Your task to perform on an android device: open chrome privacy settings Image 0: 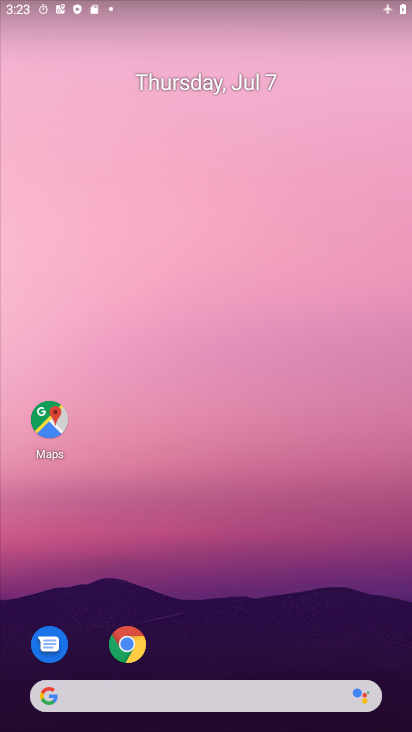
Step 0: drag from (193, 667) to (387, 34)
Your task to perform on an android device: open chrome privacy settings Image 1: 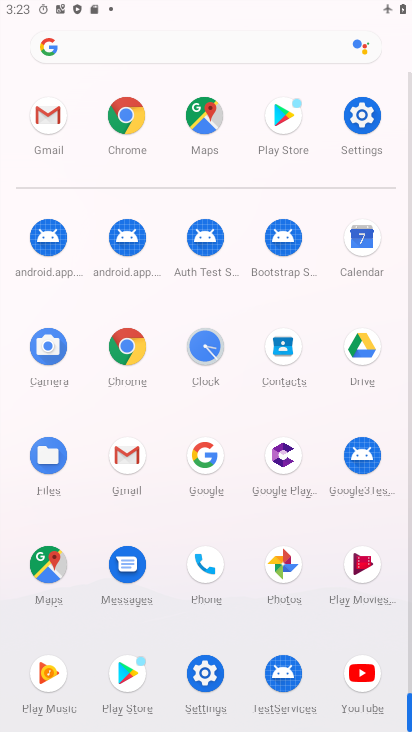
Step 1: click (118, 352)
Your task to perform on an android device: open chrome privacy settings Image 2: 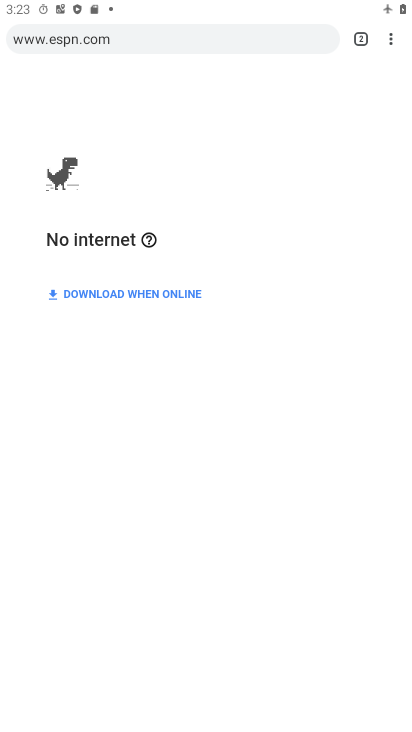
Step 2: drag from (391, 32) to (248, 428)
Your task to perform on an android device: open chrome privacy settings Image 3: 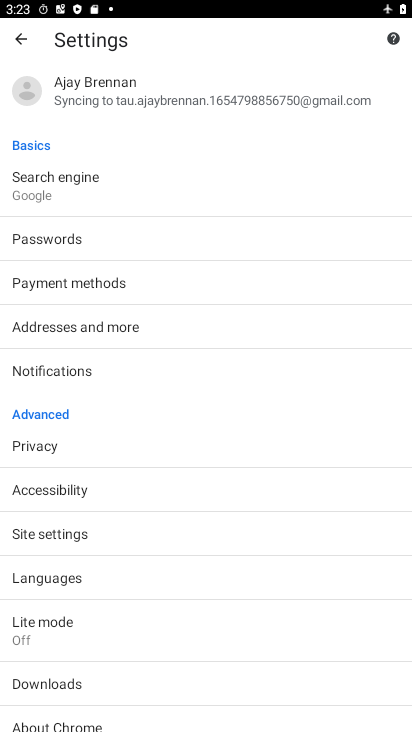
Step 3: click (38, 455)
Your task to perform on an android device: open chrome privacy settings Image 4: 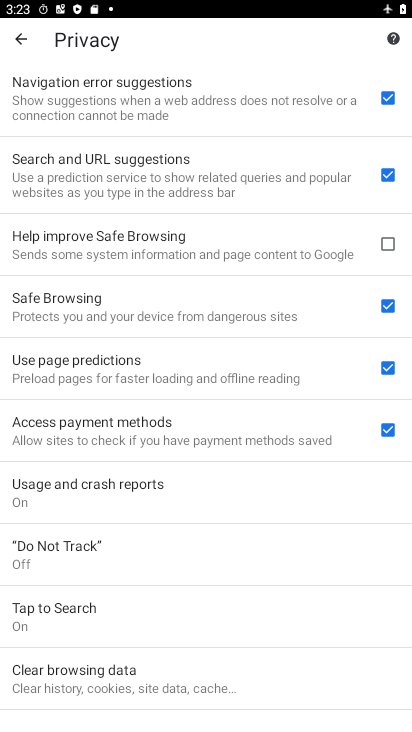
Step 4: task complete